Your task to perform on an android device: remove spam from my inbox in the gmail app Image 0: 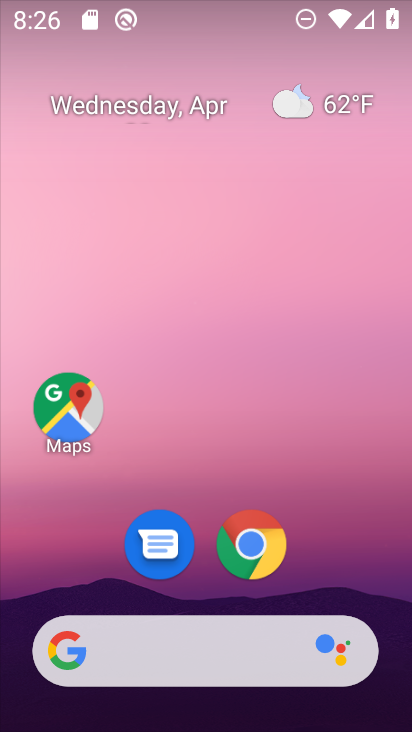
Step 0: drag from (215, 546) to (240, 133)
Your task to perform on an android device: remove spam from my inbox in the gmail app Image 1: 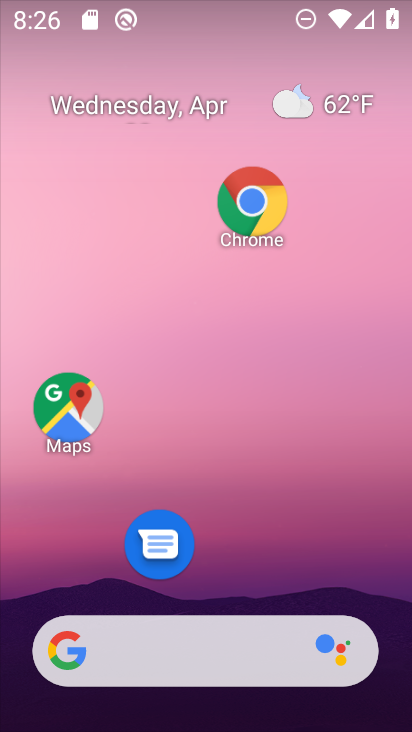
Step 1: drag from (215, 458) to (197, 94)
Your task to perform on an android device: remove spam from my inbox in the gmail app Image 2: 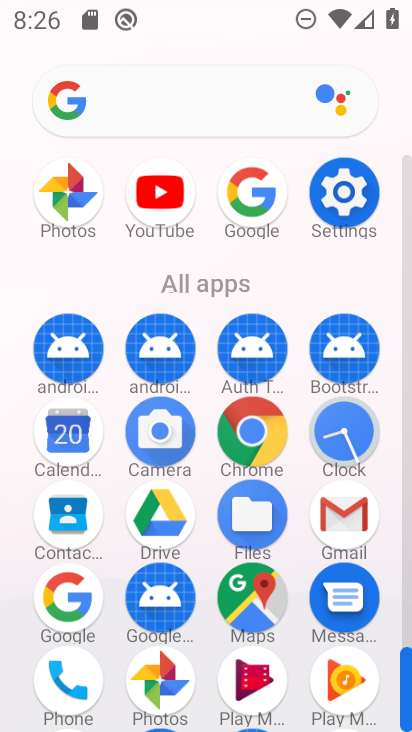
Step 2: click (332, 496)
Your task to perform on an android device: remove spam from my inbox in the gmail app Image 3: 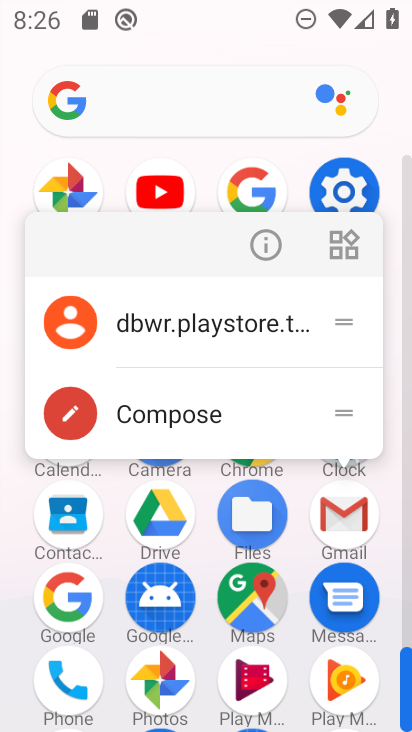
Step 3: click (338, 525)
Your task to perform on an android device: remove spam from my inbox in the gmail app Image 4: 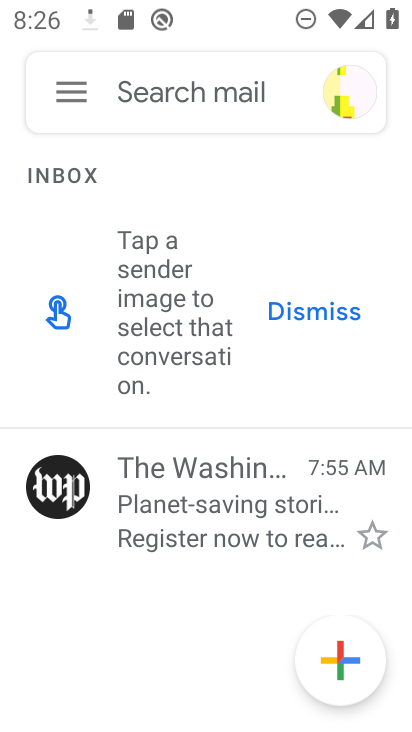
Step 4: click (69, 94)
Your task to perform on an android device: remove spam from my inbox in the gmail app Image 5: 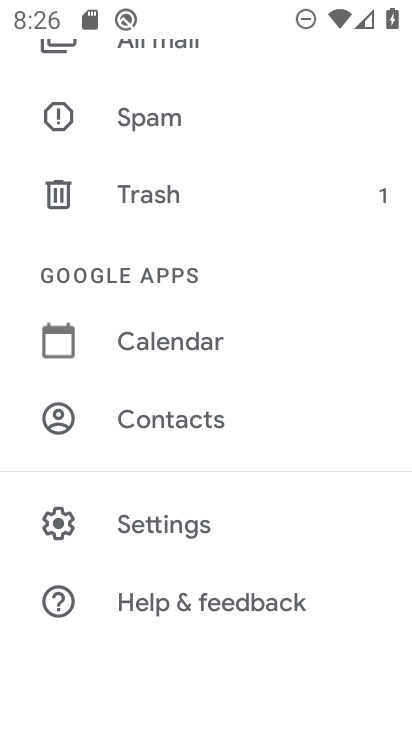
Step 5: click (192, 123)
Your task to perform on an android device: remove spam from my inbox in the gmail app Image 6: 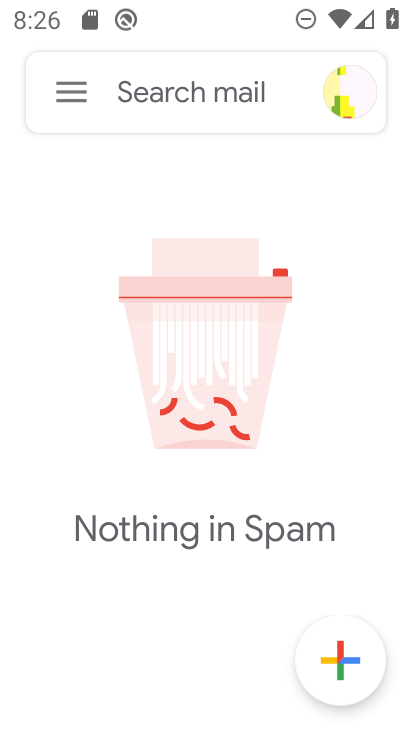
Step 6: task complete